Your task to perform on an android device: allow cookies in the chrome app Image 0: 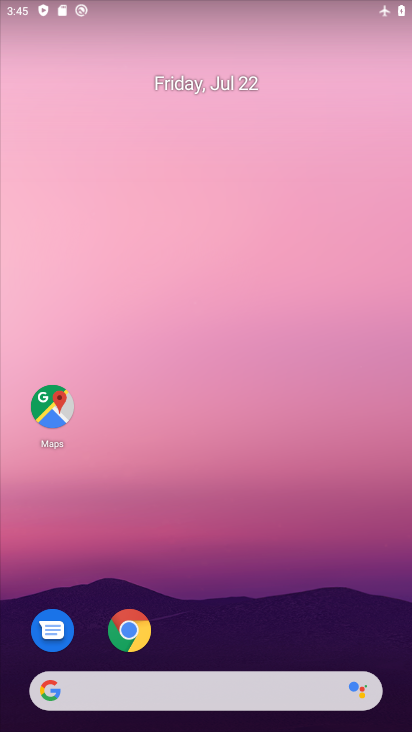
Step 0: click (140, 625)
Your task to perform on an android device: allow cookies in the chrome app Image 1: 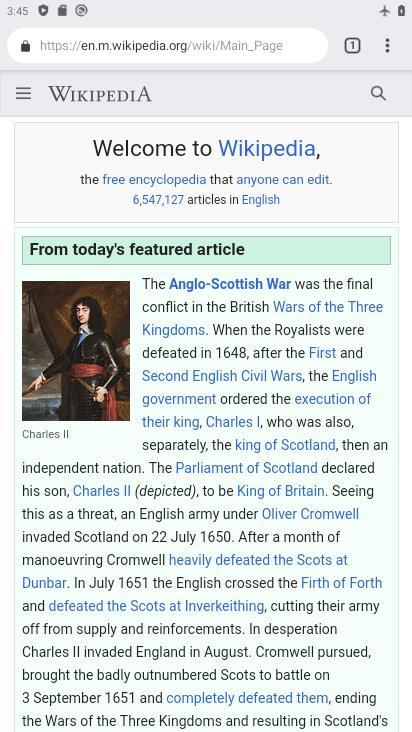
Step 1: click (391, 46)
Your task to perform on an android device: allow cookies in the chrome app Image 2: 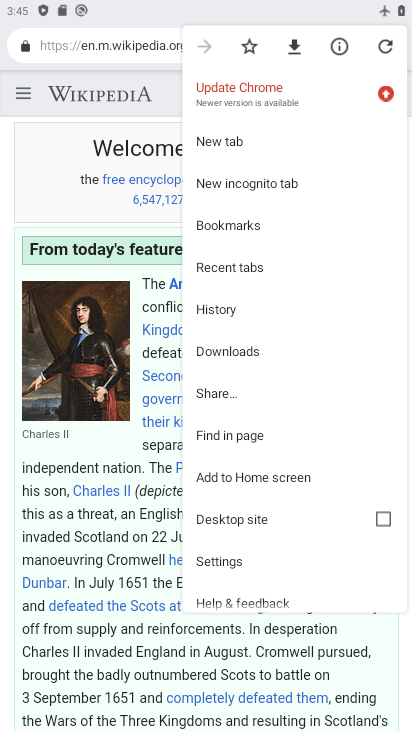
Step 2: click (233, 562)
Your task to perform on an android device: allow cookies in the chrome app Image 3: 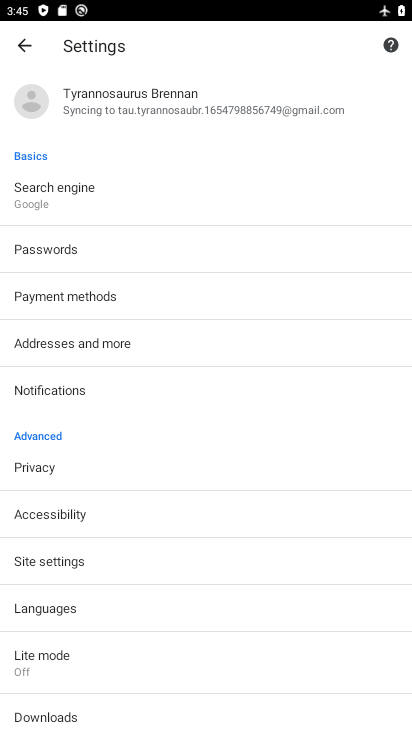
Step 3: click (67, 555)
Your task to perform on an android device: allow cookies in the chrome app Image 4: 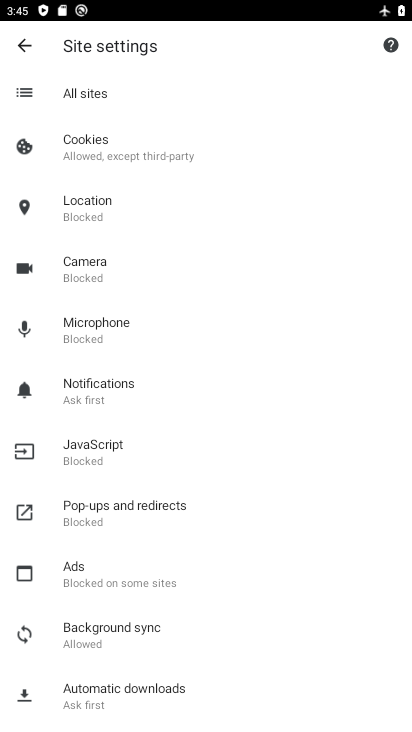
Step 4: click (104, 158)
Your task to perform on an android device: allow cookies in the chrome app Image 5: 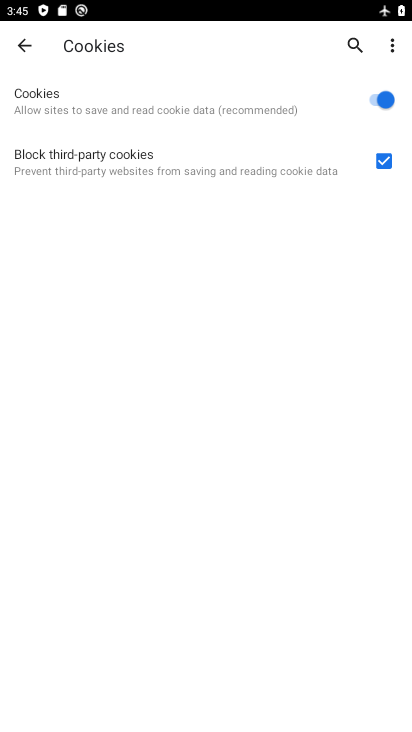
Step 5: task complete